Your task to perform on an android device: Is it going to rain this weekend? Image 0: 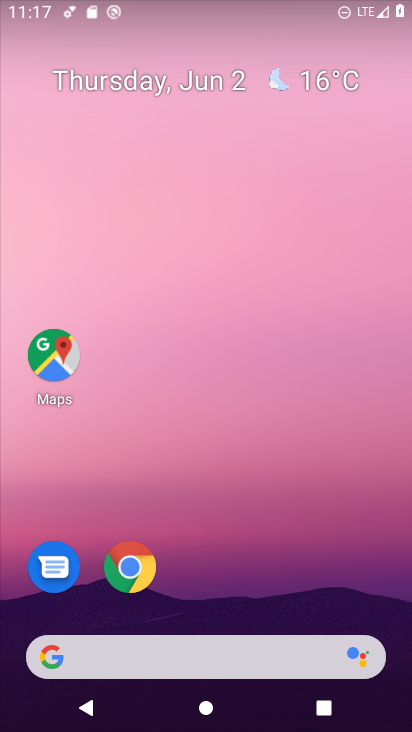
Step 0: click (323, 73)
Your task to perform on an android device: Is it going to rain this weekend? Image 1: 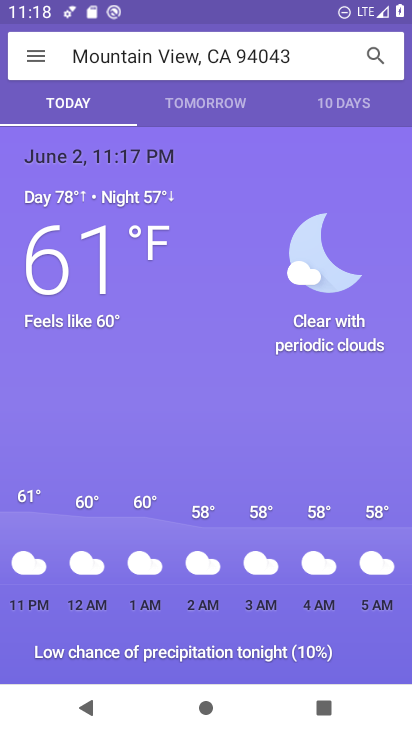
Step 1: click (353, 94)
Your task to perform on an android device: Is it going to rain this weekend? Image 2: 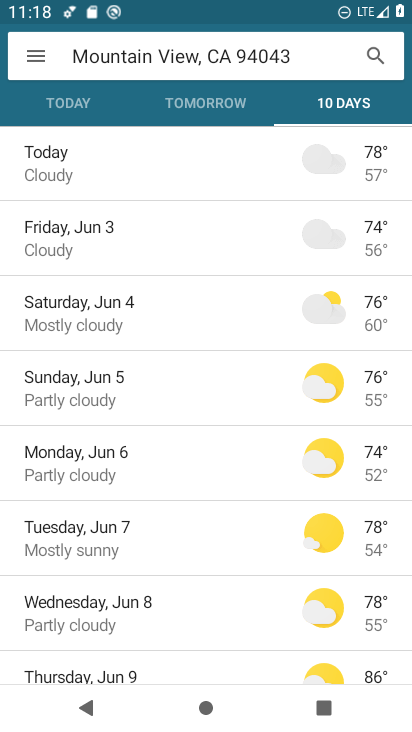
Step 2: task complete